Your task to perform on an android device: Search for Italian restaurants on Maps Image 0: 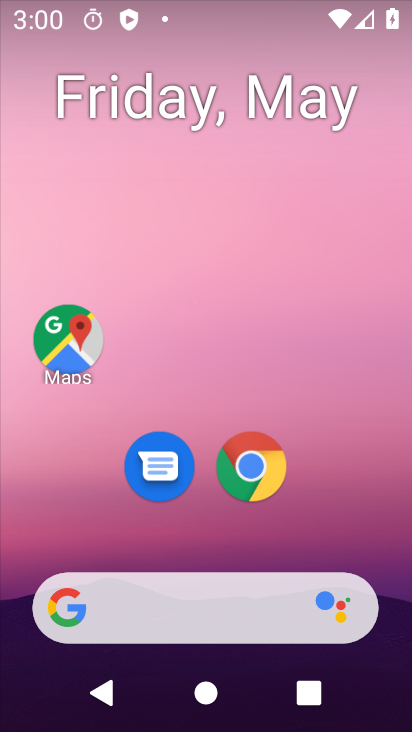
Step 0: click (68, 344)
Your task to perform on an android device: Search for Italian restaurants on Maps Image 1: 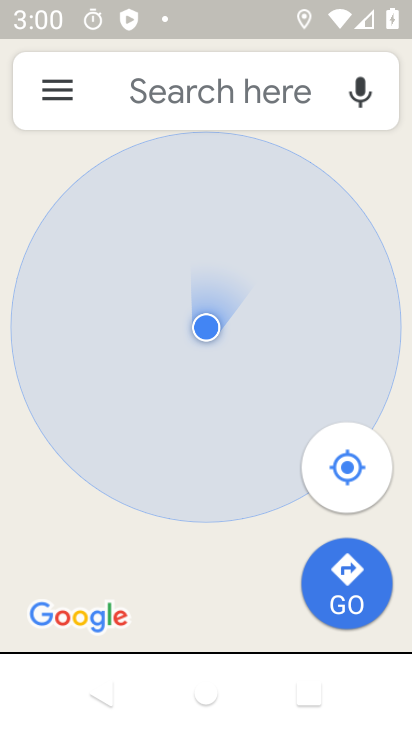
Step 1: click (218, 99)
Your task to perform on an android device: Search for Italian restaurants on Maps Image 2: 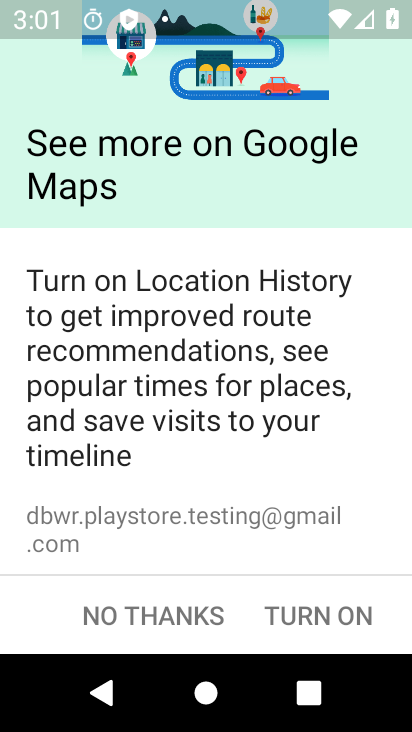
Step 2: click (292, 628)
Your task to perform on an android device: Search for Italian restaurants on Maps Image 3: 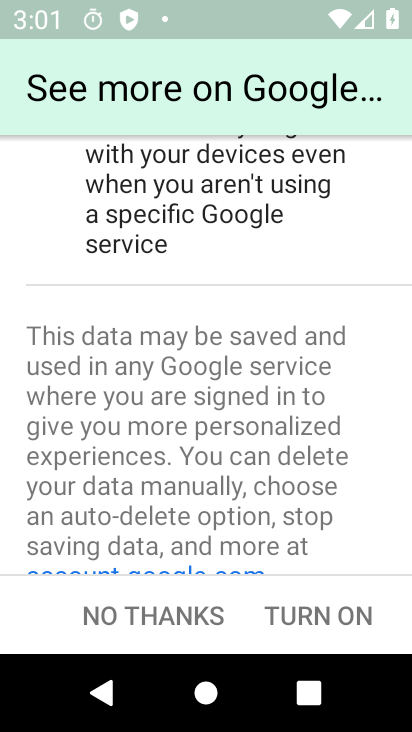
Step 3: click (292, 628)
Your task to perform on an android device: Search for Italian restaurants on Maps Image 4: 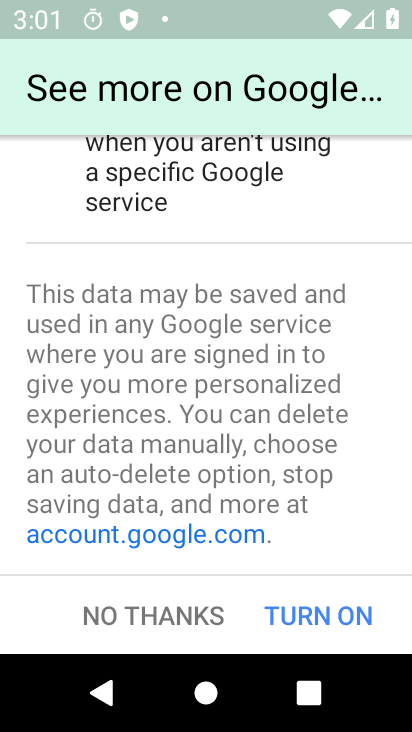
Step 4: click (292, 628)
Your task to perform on an android device: Search for Italian restaurants on Maps Image 5: 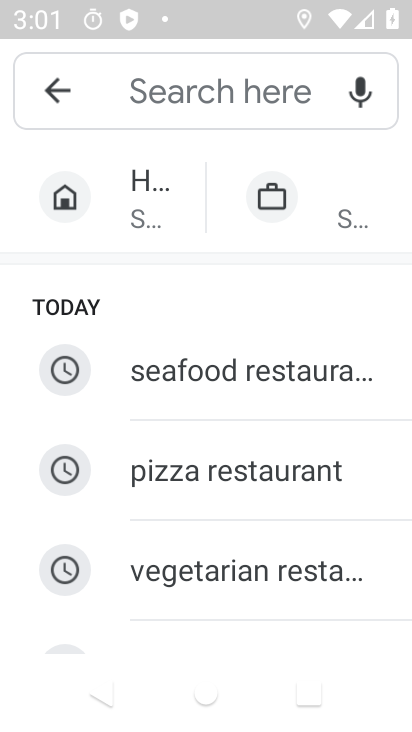
Step 5: click (181, 95)
Your task to perform on an android device: Search for Italian restaurants on Maps Image 6: 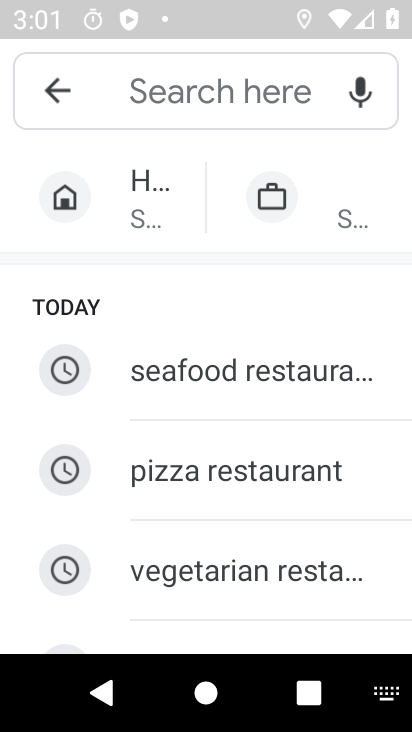
Step 6: type "ita"
Your task to perform on an android device: Search for Italian restaurants on Maps Image 7: 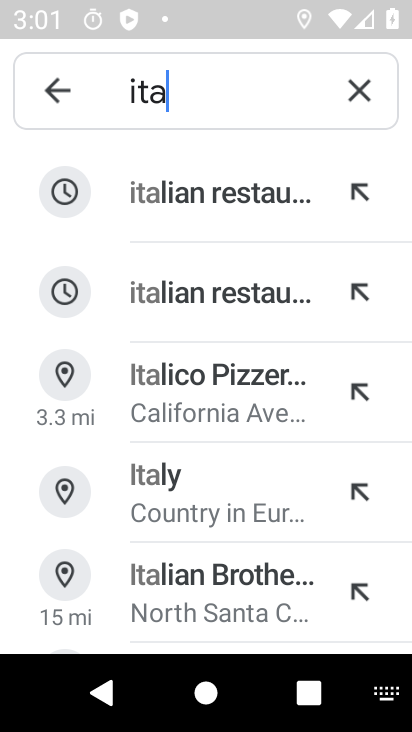
Step 7: click (237, 209)
Your task to perform on an android device: Search for Italian restaurants on Maps Image 8: 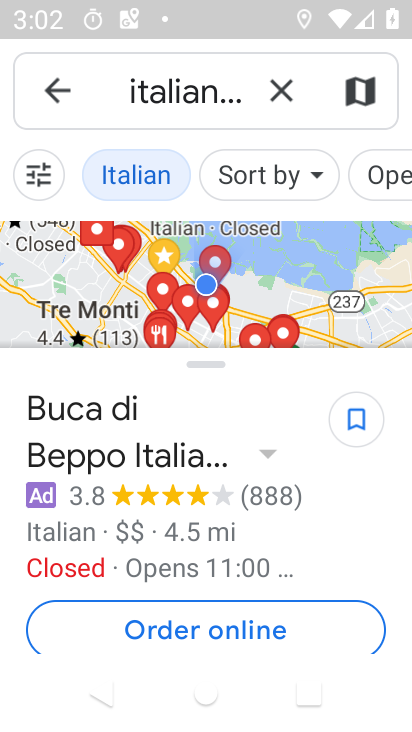
Step 8: task complete